Your task to perform on an android device: star an email in the gmail app Image 0: 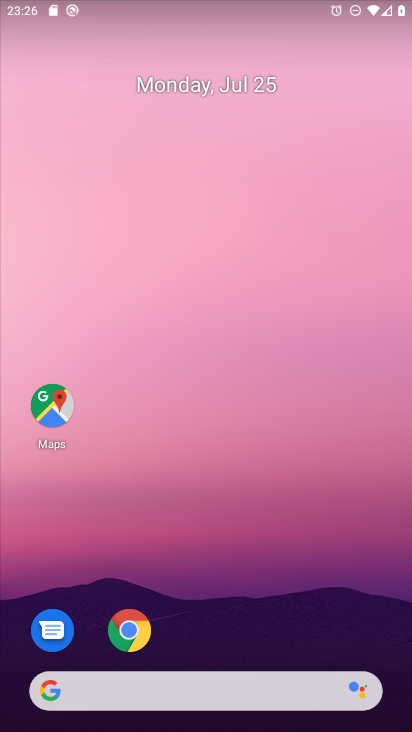
Step 0: drag from (295, 609) to (283, 82)
Your task to perform on an android device: star an email in the gmail app Image 1: 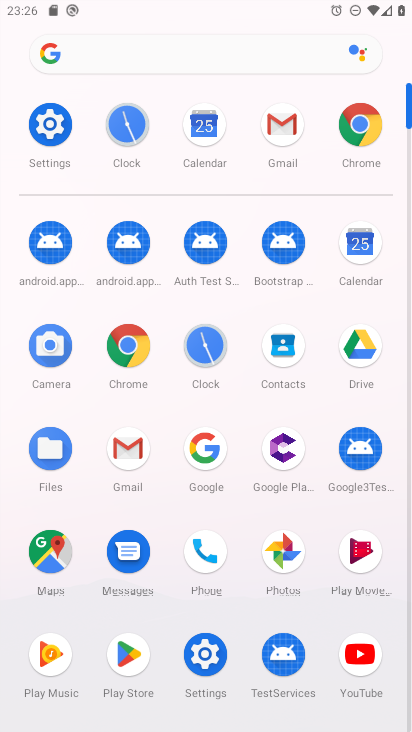
Step 1: click (290, 125)
Your task to perform on an android device: star an email in the gmail app Image 2: 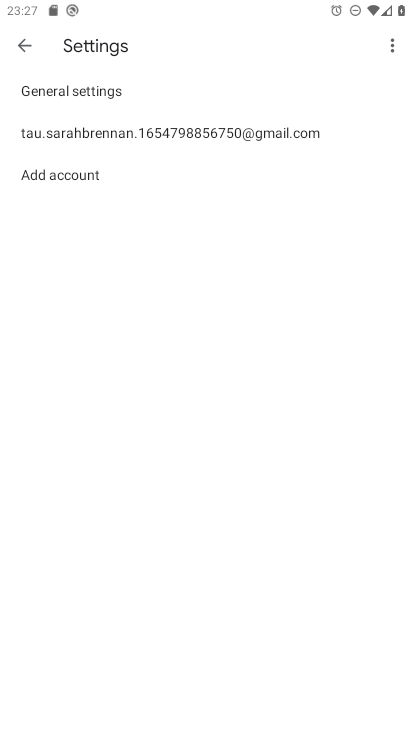
Step 2: click (17, 48)
Your task to perform on an android device: star an email in the gmail app Image 3: 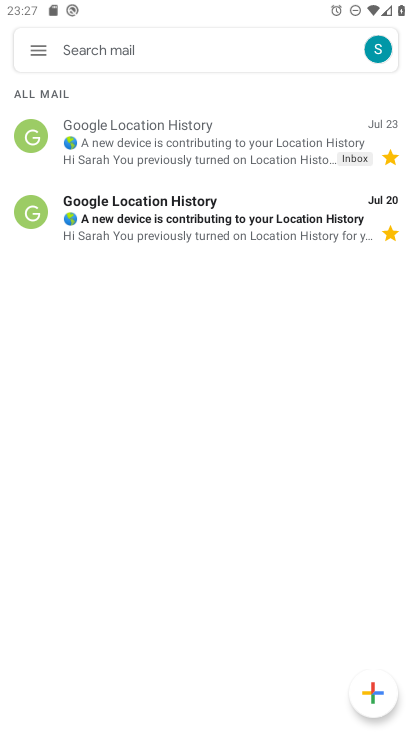
Step 3: click (41, 56)
Your task to perform on an android device: star an email in the gmail app Image 4: 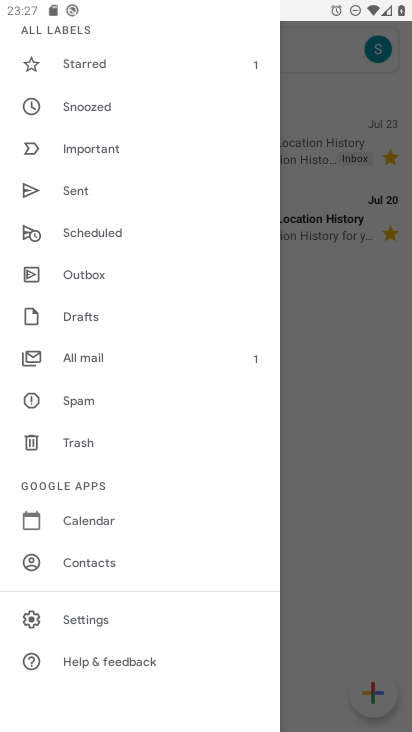
Step 4: click (93, 357)
Your task to perform on an android device: star an email in the gmail app Image 5: 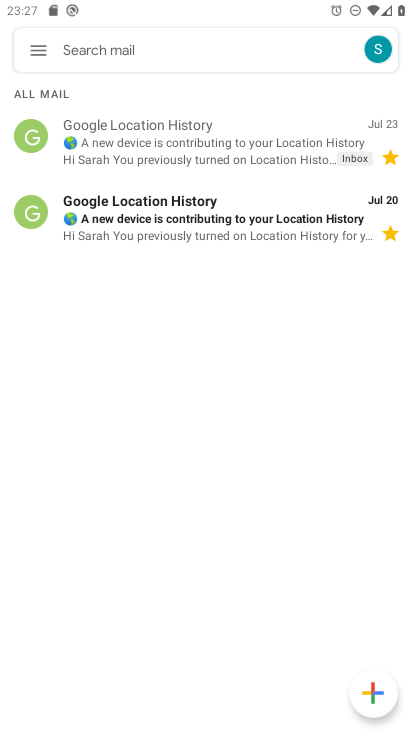
Step 5: task complete